Your task to perform on an android device: add a contact Image 0: 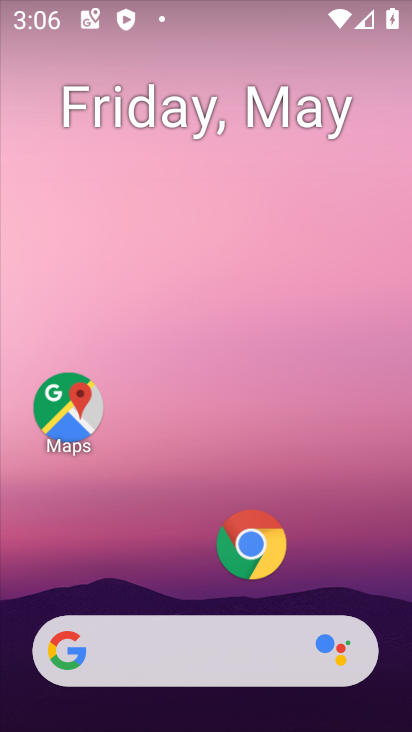
Step 0: drag from (187, 567) to (192, 230)
Your task to perform on an android device: add a contact Image 1: 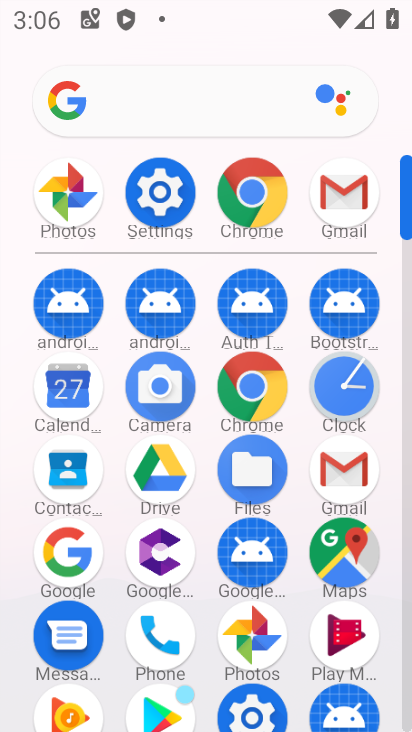
Step 1: click (65, 500)
Your task to perform on an android device: add a contact Image 2: 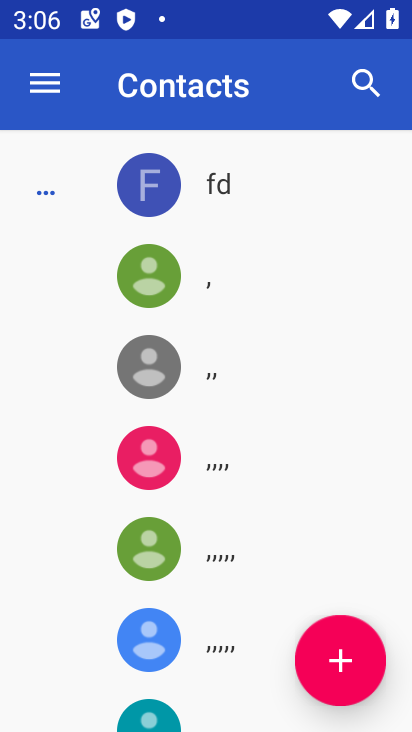
Step 2: click (340, 646)
Your task to perform on an android device: add a contact Image 3: 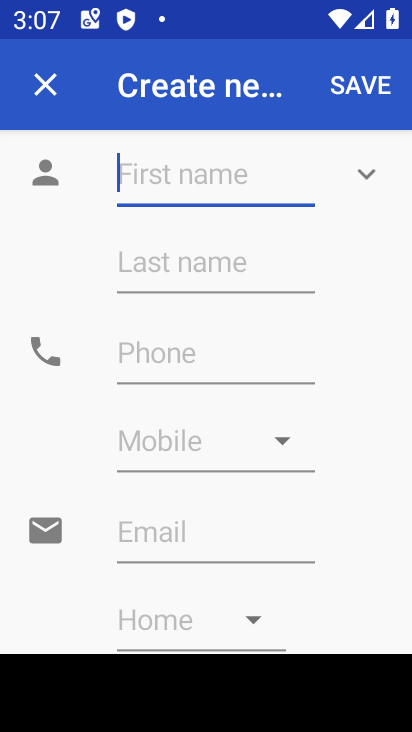
Step 3: type "gyt"
Your task to perform on an android device: add a contact Image 4: 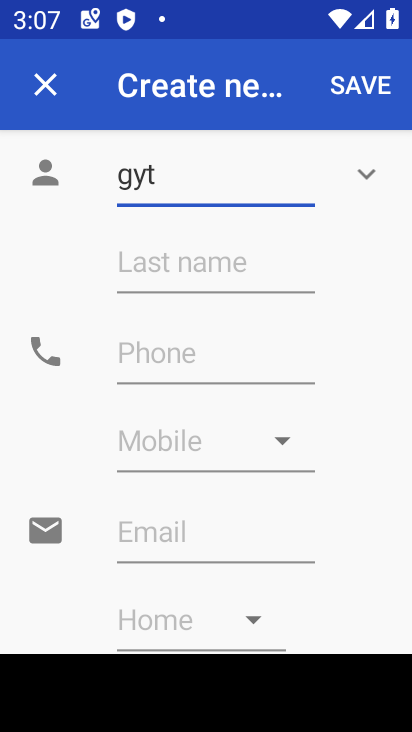
Step 4: click (289, 349)
Your task to perform on an android device: add a contact Image 5: 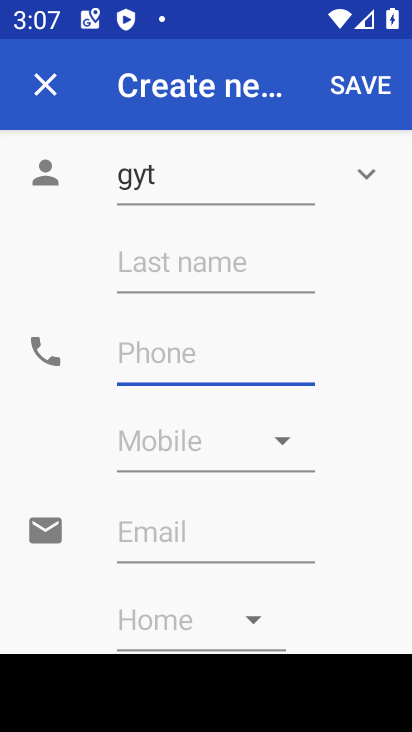
Step 5: type "98756757678"
Your task to perform on an android device: add a contact Image 6: 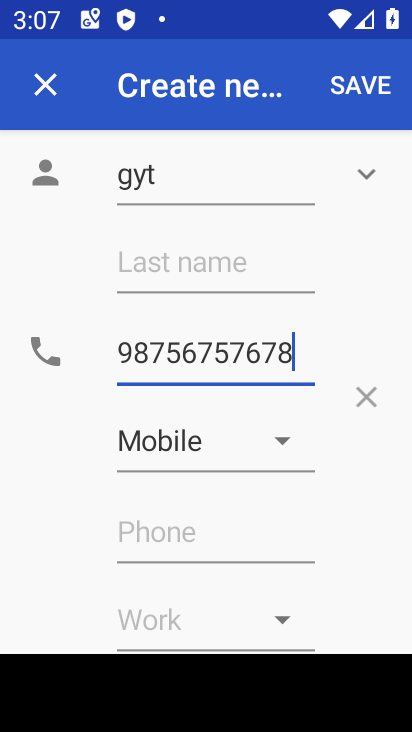
Step 6: click (350, 80)
Your task to perform on an android device: add a contact Image 7: 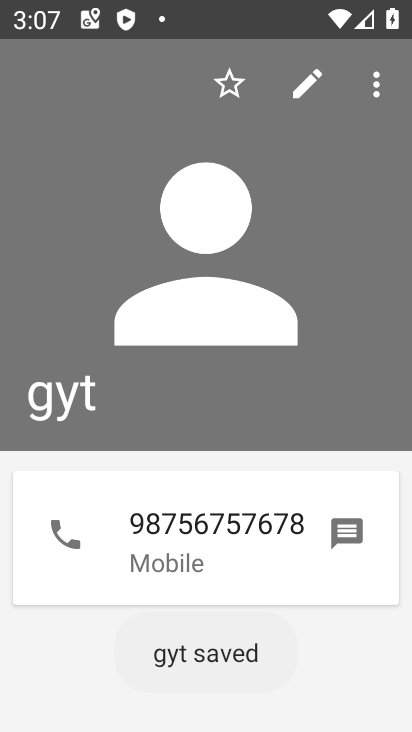
Step 7: task complete